Your task to perform on an android device: Go to Wikipedia Image 0: 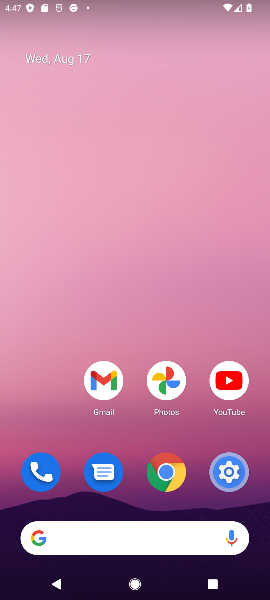
Step 0: click (173, 462)
Your task to perform on an android device: Go to Wikipedia Image 1: 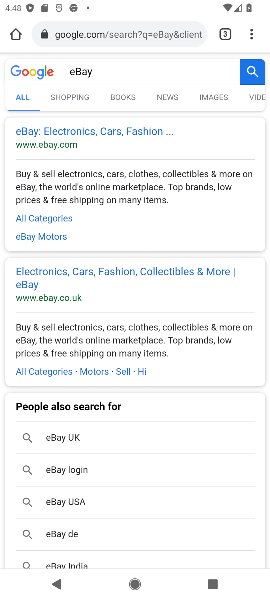
Step 1: click (229, 37)
Your task to perform on an android device: Go to Wikipedia Image 2: 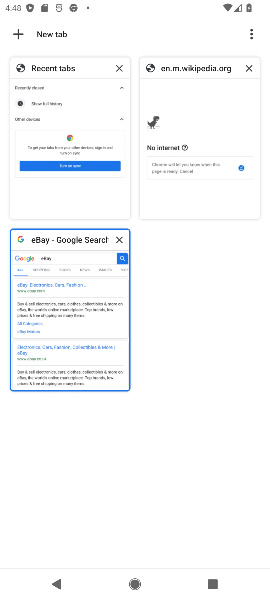
Step 2: click (16, 31)
Your task to perform on an android device: Go to Wikipedia Image 3: 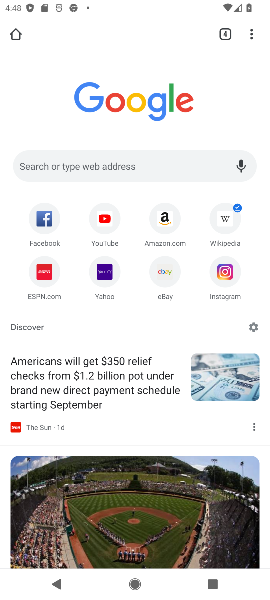
Step 3: click (223, 220)
Your task to perform on an android device: Go to Wikipedia Image 4: 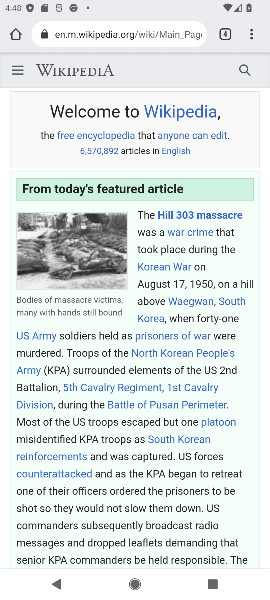
Step 4: task complete